Your task to perform on an android device: Search for sushi restaurants on Maps Image 0: 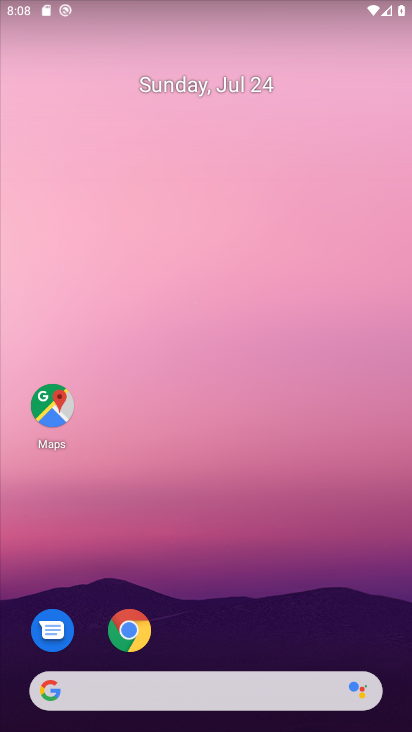
Step 0: drag from (264, 636) to (154, 1)
Your task to perform on an android device: Search for sushi restaurants on Maps Image 1: 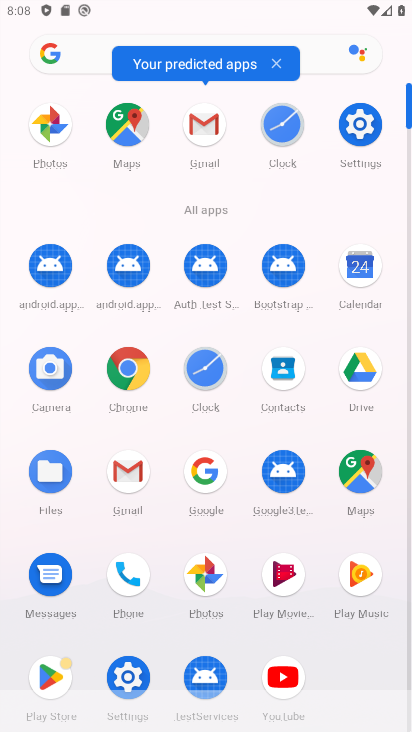
Step 1: click (117, 129)
Your task to perform on an android device: Search for sushi restaurants on Maps Image 2: 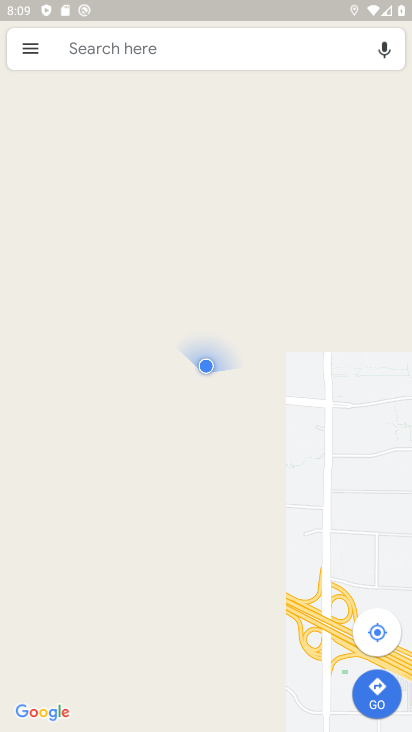
Step 2: click (174, 53)
Your task to perform on an android device: Search for sushi restaurants on Maps Image 3: 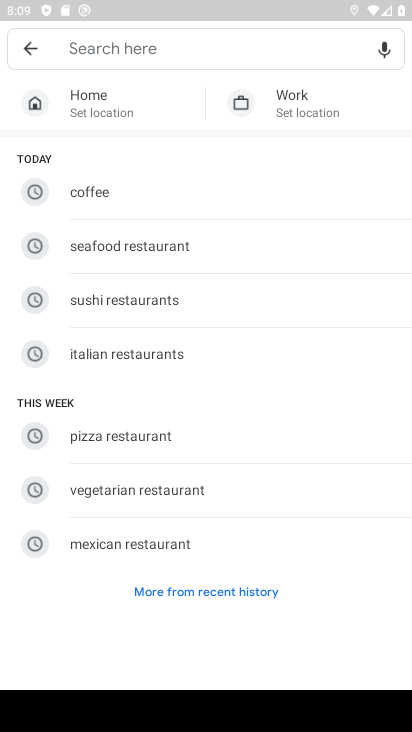
Step 3: click (162, 302)
Your task to perform on an android device: Search for sushi restaurants on Maps Image 4: 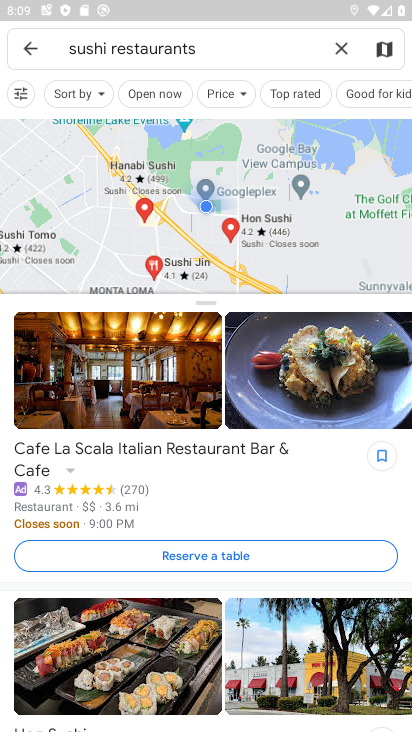
Step 4: task complete